Your task to perform on an android device: Go to accessibility settings Image 0: 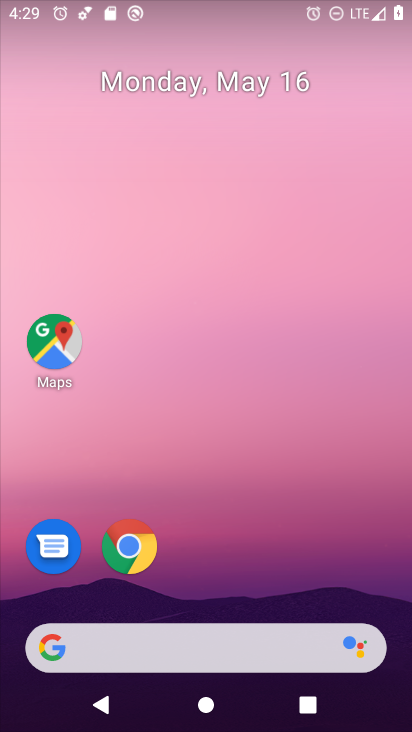
Step 0: drag from (338, 549) to (339, 194)
Your task to perform on an android device: Go to accessibility settings Image 1: 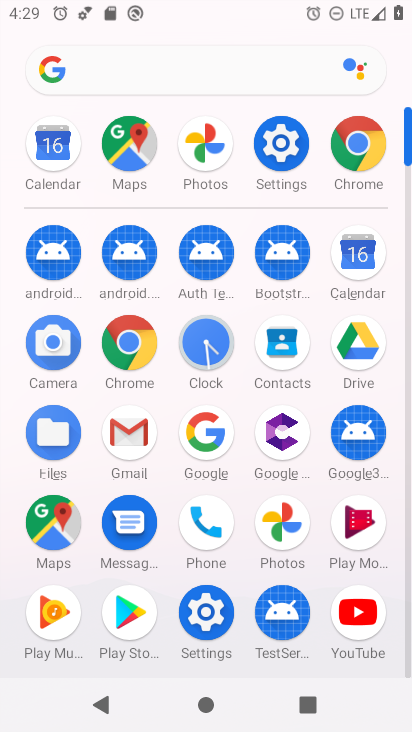
Step 1: click (275, 151)
Your task to perform on an android device: Go to accessibility settings Image 2: 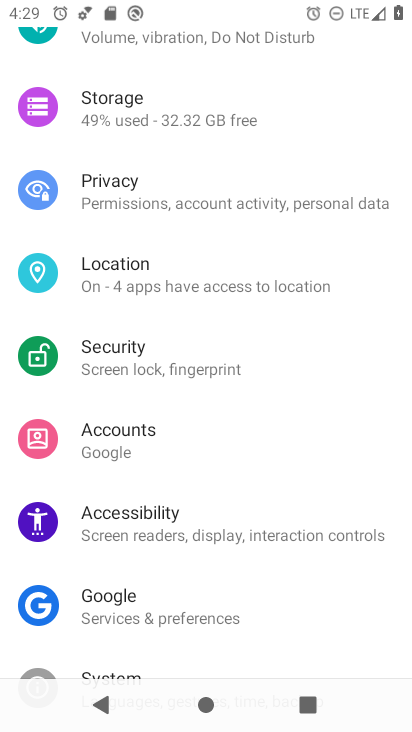
Step 2: drag from (316, 602) to (304, 392)
Your task to perform on an android device: Go to accessibility settings Image 3: 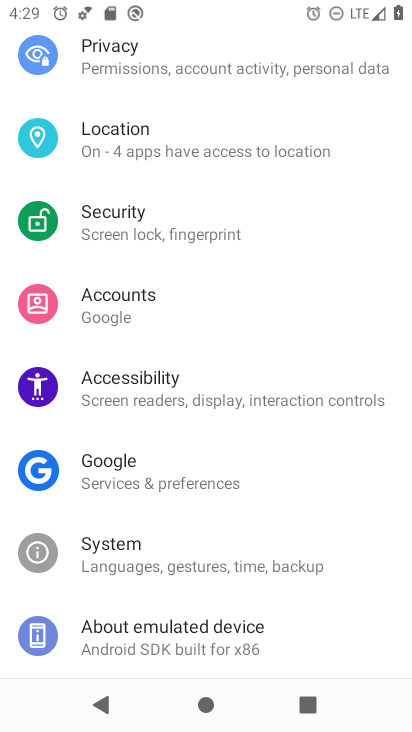
Step 3: drag from (338, 620) to (330, 418)
Your task to perform on an android device: Go to accessibility settings Image 4: 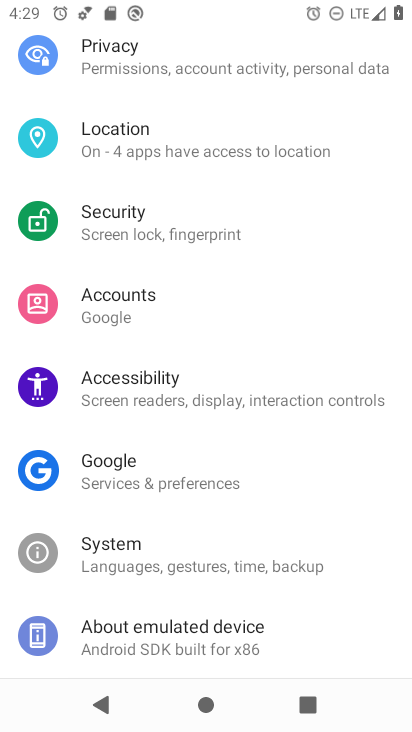
Step 4: drag from (322, 256) to (323, 481)
Your task to perform on an android device: Go to accessibility settings Image 5: 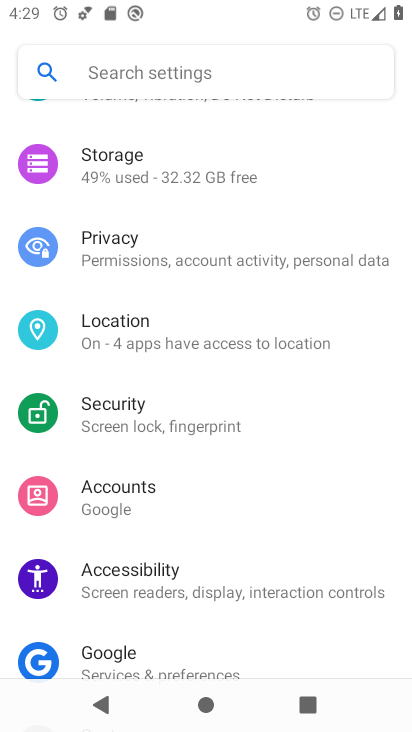
Step 5: drag from (321, 294) to (317, 446)
Your task to perform on an android device: Go to accessibility settings Image 6: 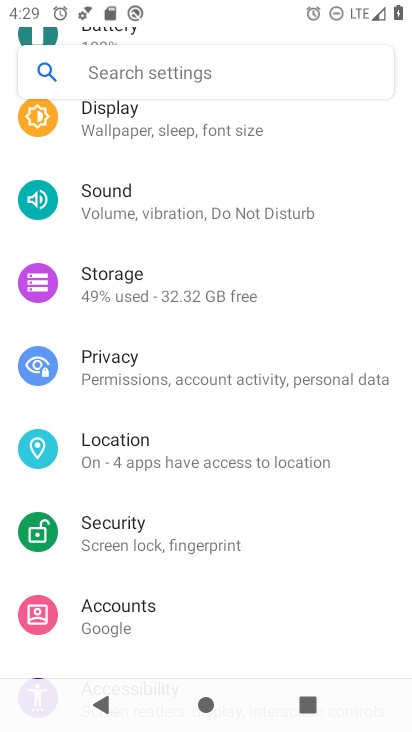
Step 6: drag from (325, 289) to (310, 499)
Your task to perform on an android device: Go to accessibility settings Image 7: 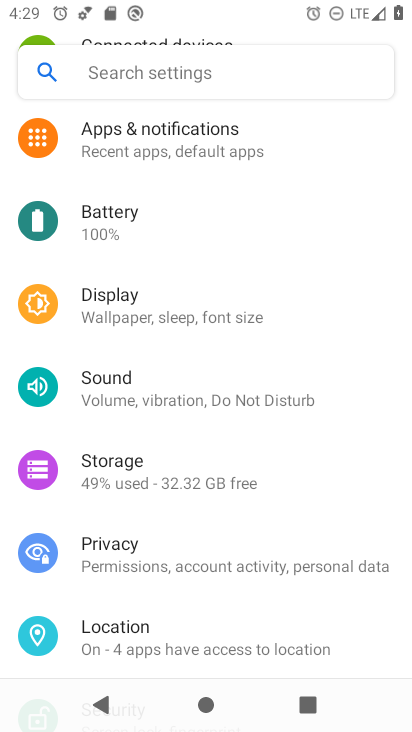
Step 7: drag from (342, 312) to (317, 562)
Your task to perform on an android device: Go to accessibility settings Image 8: 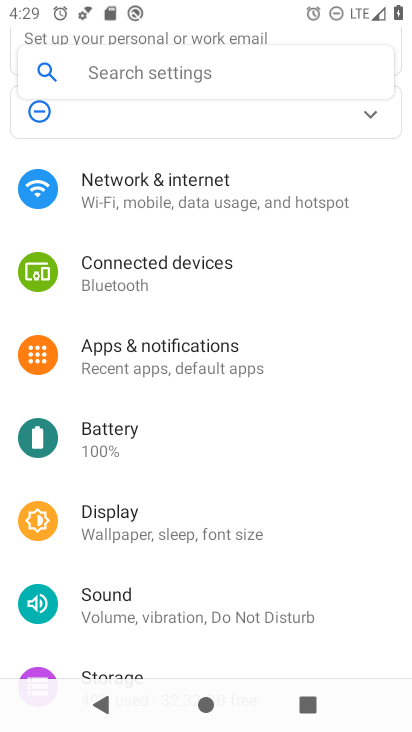
Step 8: drag from (339, 593) to (331, 357)
Your task to perform on an android device: Go to accessibility settings Image 9: 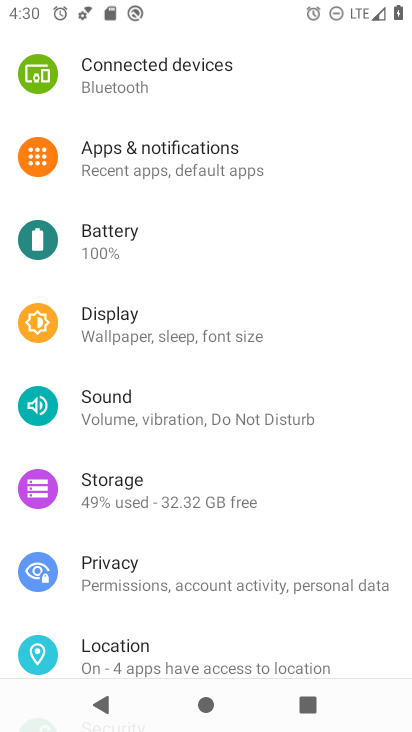
Step 9: drag from (323, 621) to (331, 388)
Your task to perform on an android device: Go to accessibility settings Image 10: 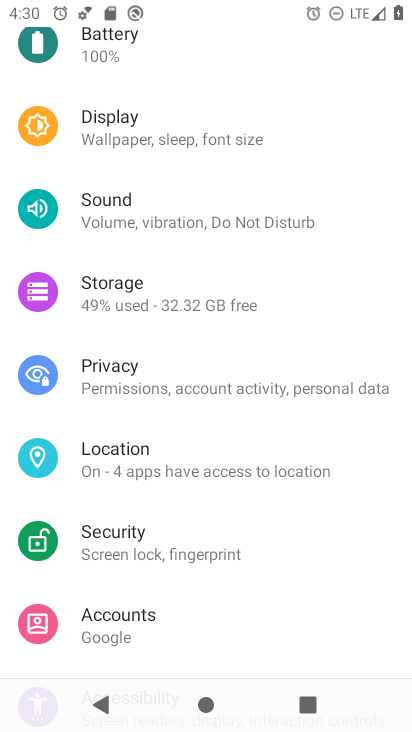
Step 10: drag from (312, 602) to (300, 381)
Your task to perform on an android device: Go to accessibility settings Image 11: 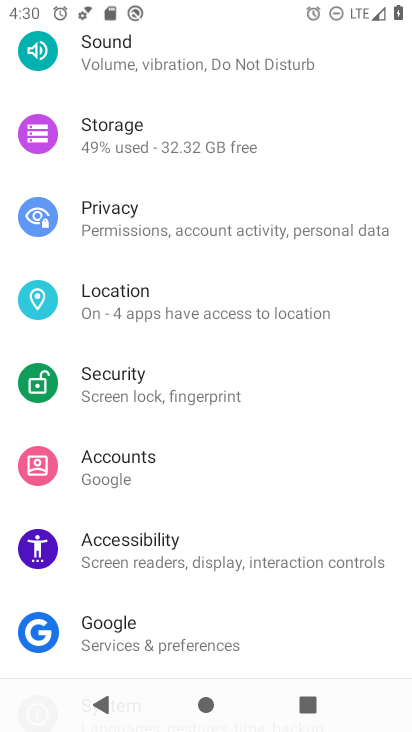
Step 11: click (234, 551)
Your task to perform on an android device: Go to accessibility settings Image 12: 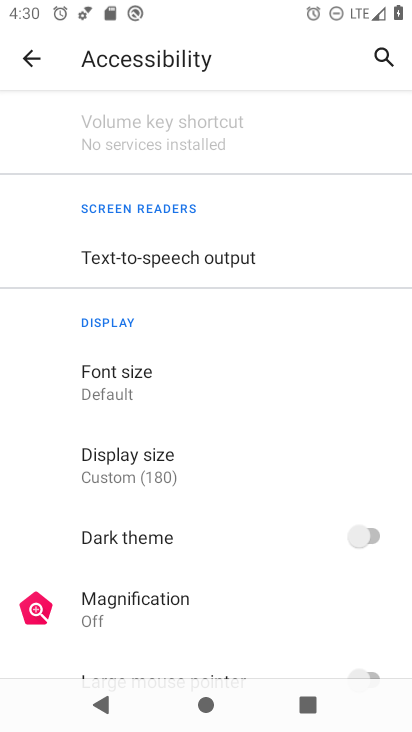
Step 12: task complete